Your task to perform on an android device: Go to Google Image 0: 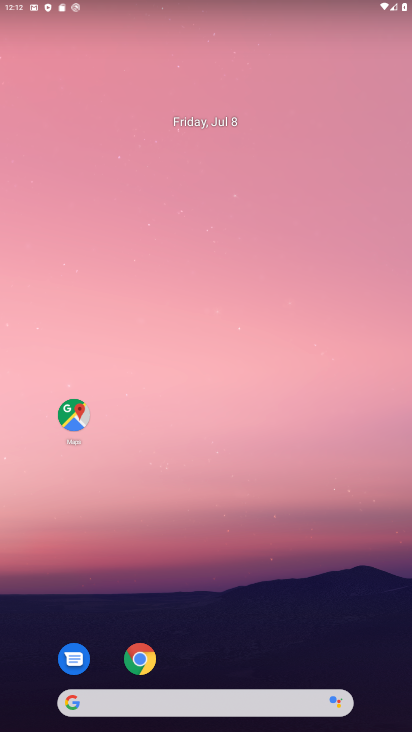
Step 0: drag from (316, 577) to (317, 128)
Your task to perform on an android device: Go to Google Image 1: 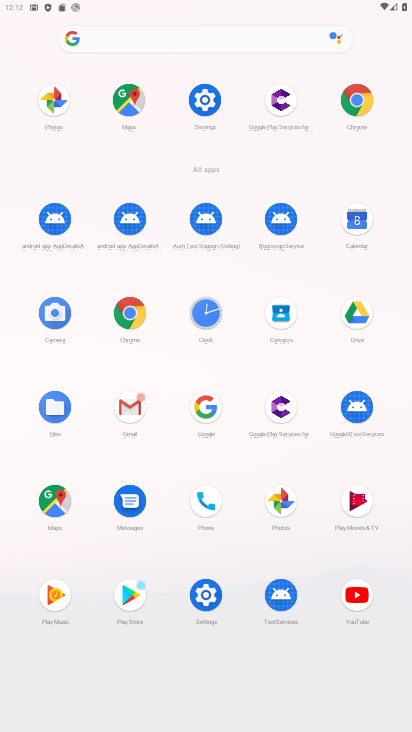
Step 1: click (214, 416)
Your task to perform on an android device: Go to Google Image 2: 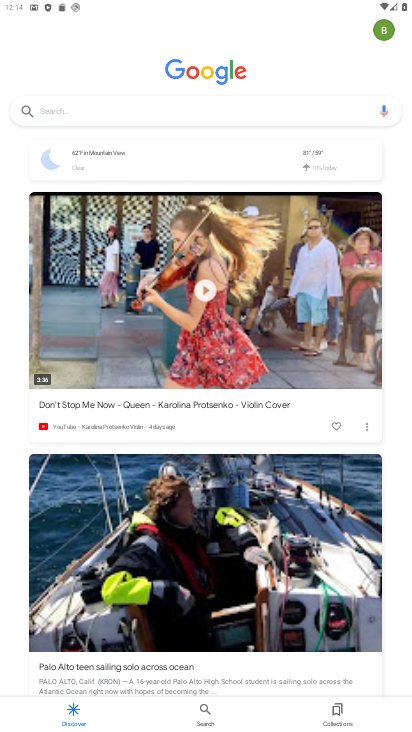
Step 2: task complete